Your task to perform on an android device: empty trash in google photos Image 0: 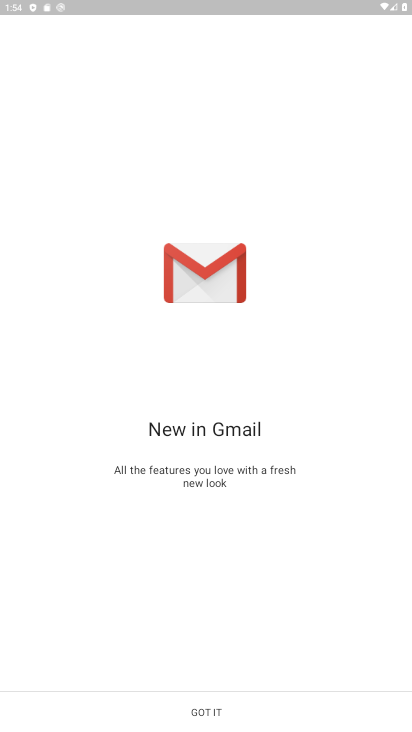
Step 0: click (204, 703)
Your task to perform on an android device: empty trash in google photos Image 1: 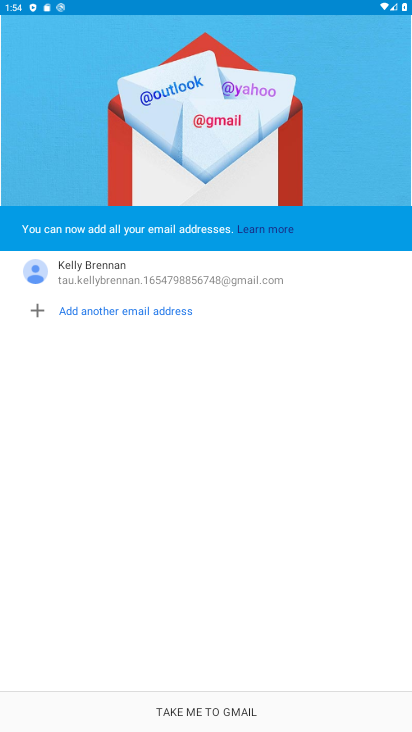
Step 1: click (204, 703)
Your task to perform on an android device: empty trash in google photos Image 2: 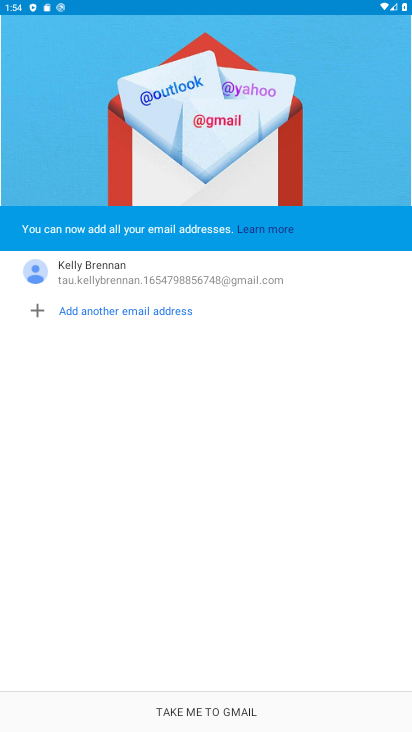
Step 2: click (204, 703)
Your task to perform on an android device: empty trash in google photos Image 3: 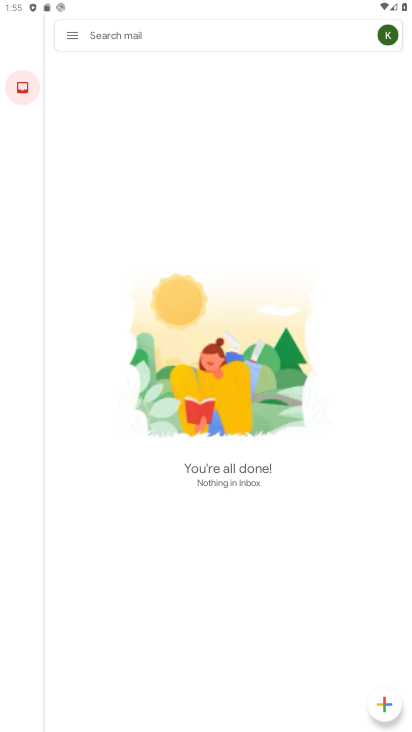
Step 3: press home button
Your task to perform on an android device: empty trash in google photos Image 4: 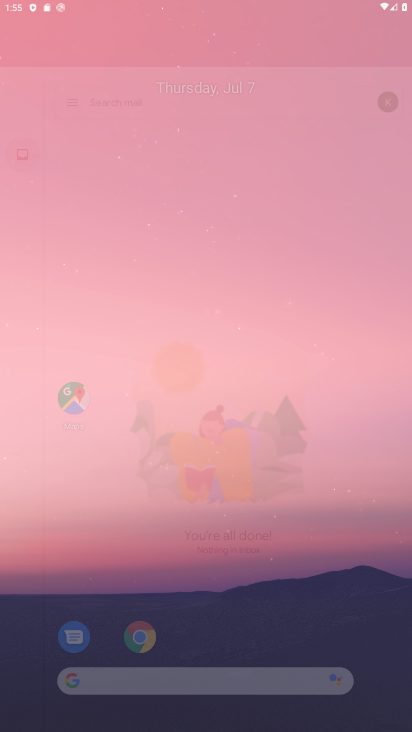
Step 4: drag from (108, 398) to (251, 533)
Your task to perform on an android device: empty trash in google photos Image 5: 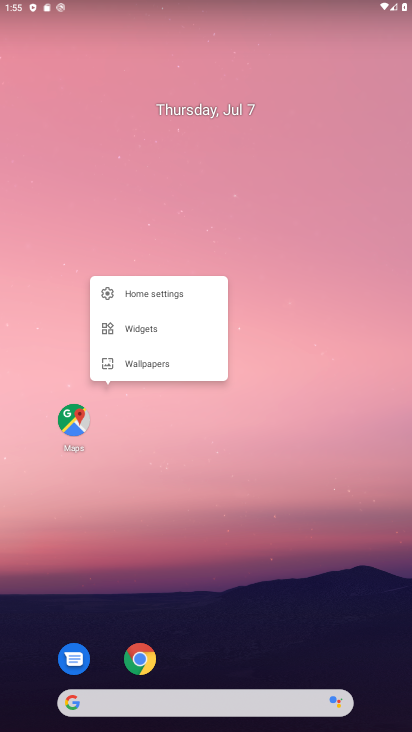
Step 5: drag from (251, 533) to (306, 436)
Your task to perform on an android device: empty trash in google photos Image 6: 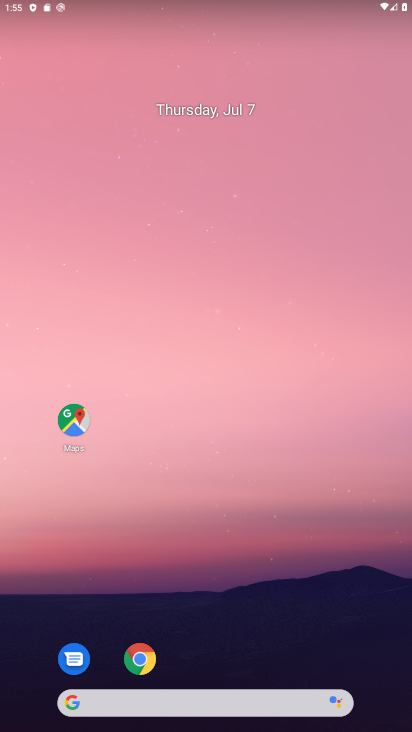
Step 6: click (297, 619)
Your task to perform on an android device: empty trash in google photos Image 7: 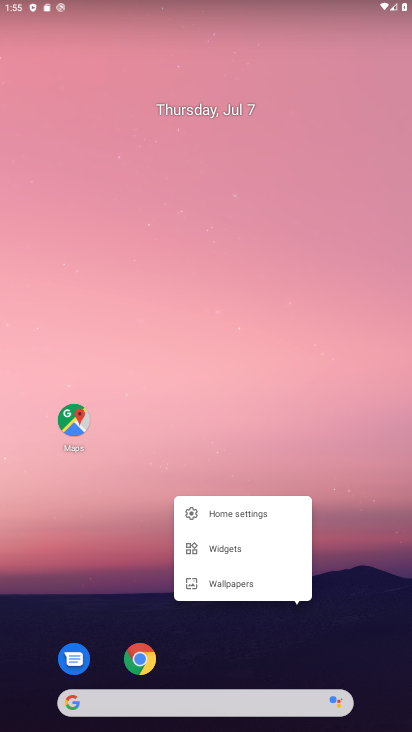
Step 7: drag from (297, 619) to (239, 83)
Your task to perform on an android device: empty trash in google photos Image 8: 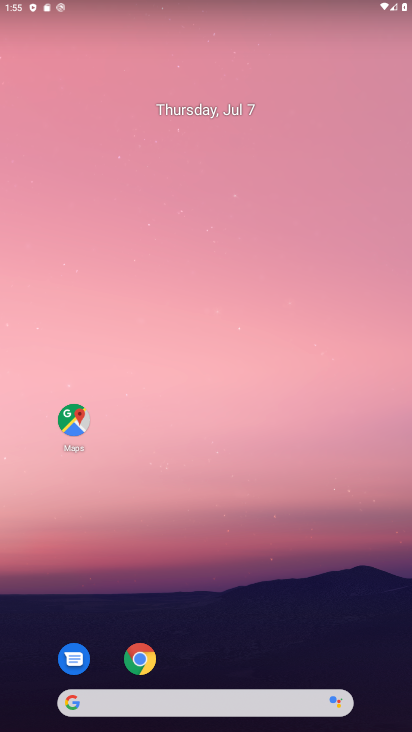
Step 8: drag from (205, 508) to (178, 10)
Your task to perform on an android device: empty trash in google photos Image 9: 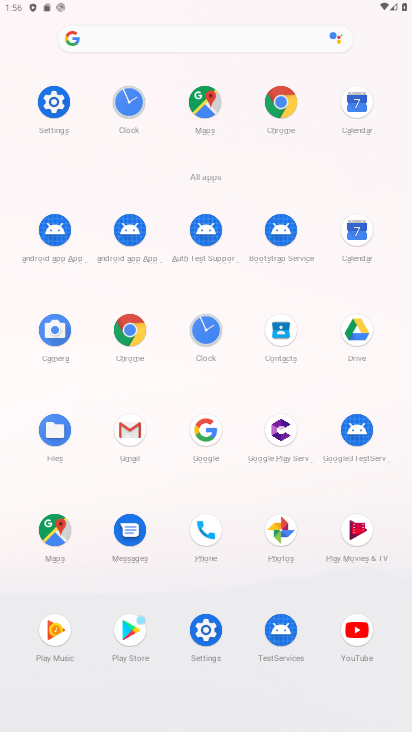
Step 9: click (284, 535)
Your task to perform on an android device: empty trash in google photos Image 10: 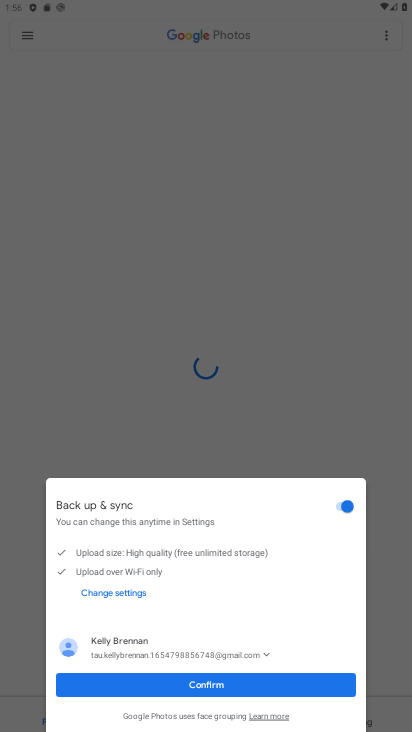
Step 10: click (310, 689)
Your task to perform on an android device: empty trash in google photos Image 11: 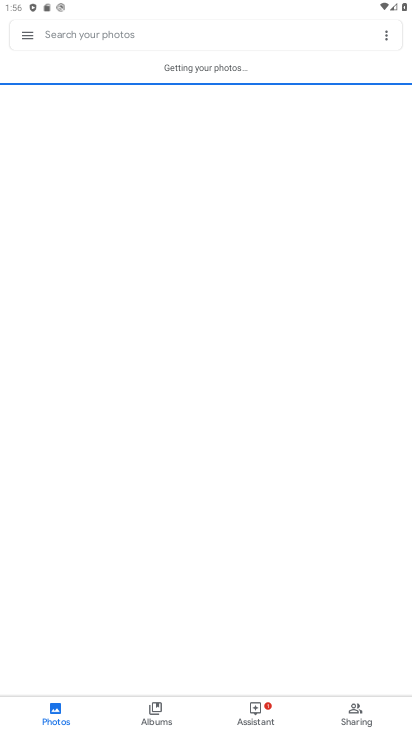
Step 11: click (24, 36)
Your task to perform on an android device: empty trash in google photos Image 12: 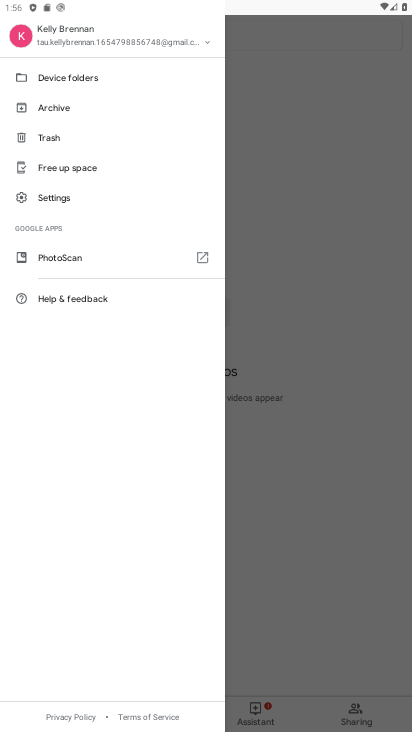
Step 12: click (74, 134)
Your task to perform on an android device: empty trash in google photos Image 13: 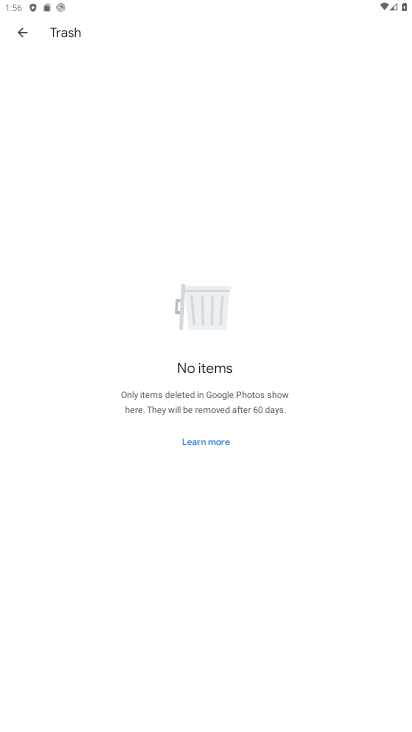
Step 13: task complete